Your task to perform on an android device: turn on bluetooth scan Image 0: 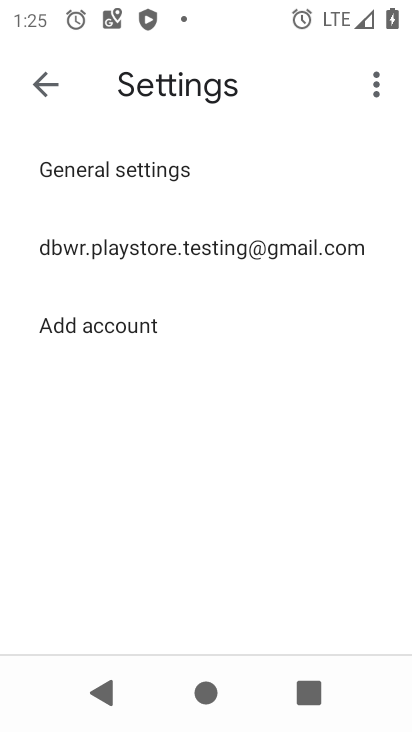
Step 0: press home button
Your task to perform on an android device: turn on bluetooth scan Image 1: 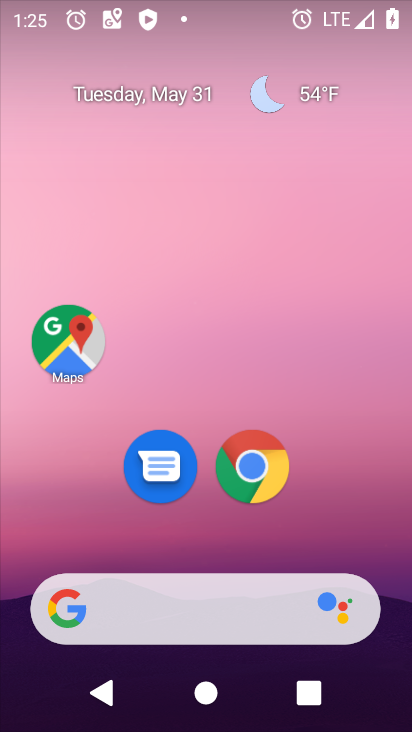
Step 1: drag from (200, 603) to (227, 23)
Your task to perform on an android device: turn on bluetooth scan Image 2: 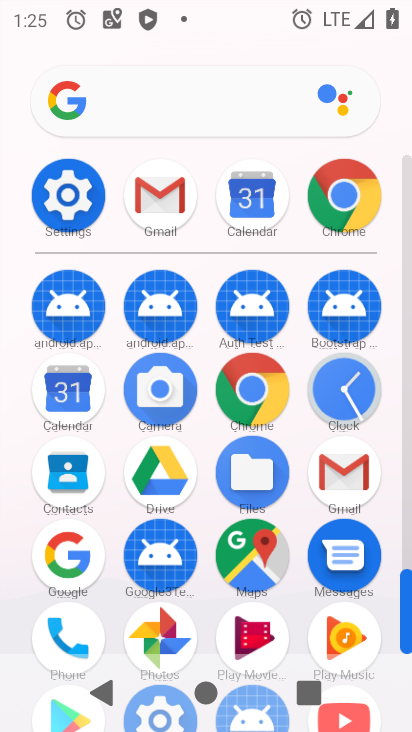
Step 2: click (83, 186)
Your task to perform on an android device: turn on bluetooth scan Image 3: 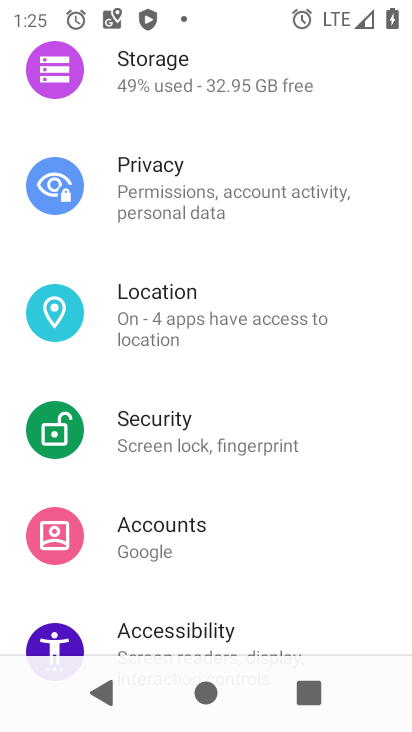
Step 3: drag from (161, 545) to (154, 7)
Your task to perform on an android device: turn on bluetooth scan Image 4: 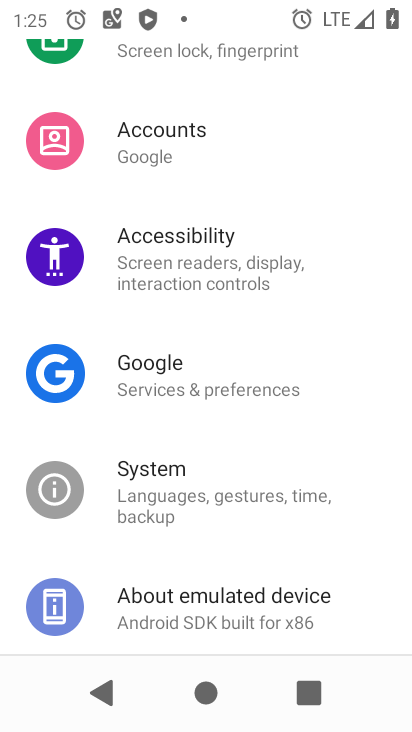
Step 4: drag from (150, 112) to (115, 503)
Your task to perform on an android device: turn on bluetooth scan Image 5: 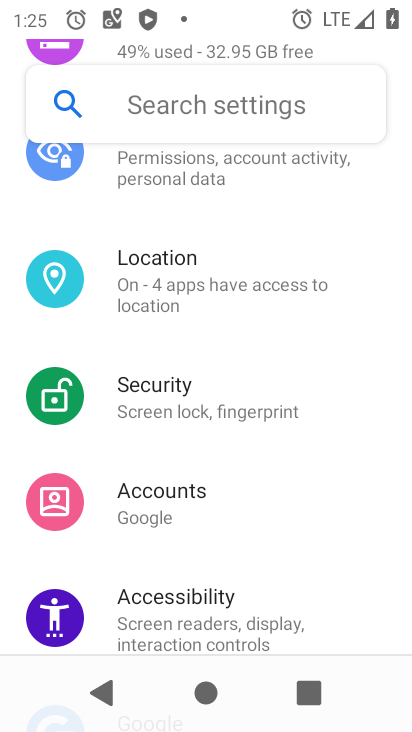
Step 5: click (169, 276)
Your task to perform on an android device: turn on bluetooth scan Image 6: 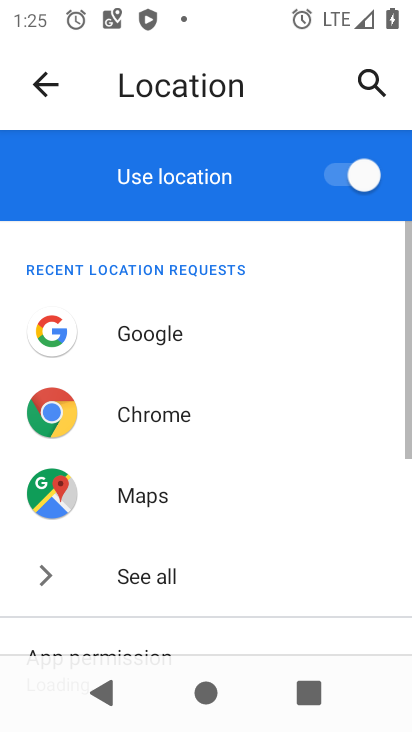
Step 6: drag from (197, 524) to (163, 20)
Your task to perform on an android device: turn on bluetooth scan Image 7: 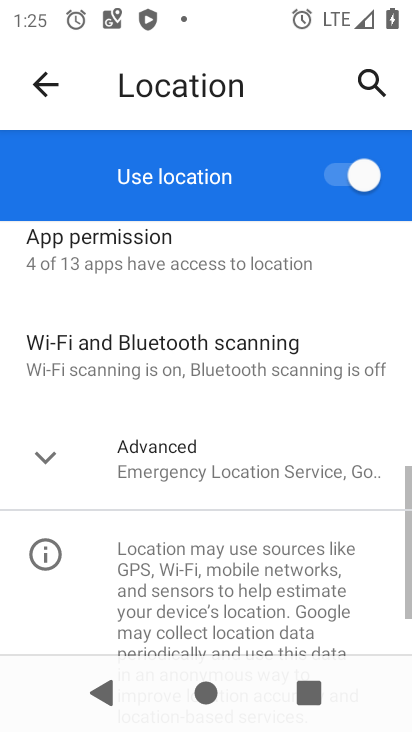
Step 7: click (133, 358)
Your task to perform on an android device: turn on bluetooth scan Image 8: 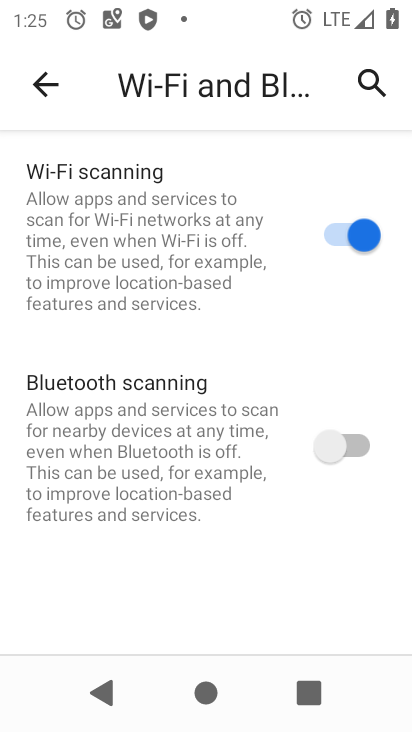
Step 8: click (362, 448)
Your task to perform on an android device: turn on bluetooth scan Image 9: 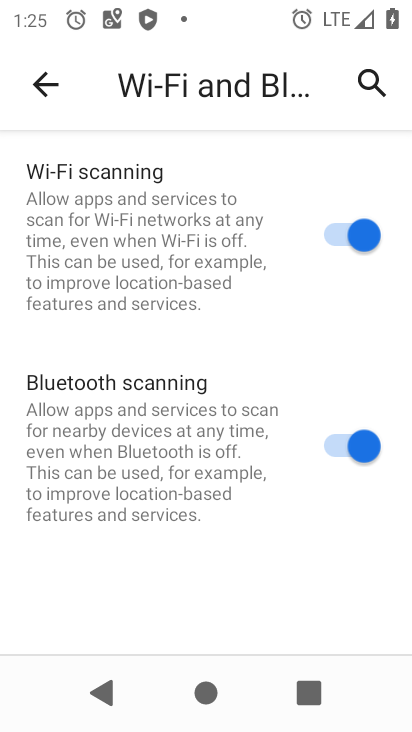
Step 9: task complete